Your task to perform on an android device: see tabs open on other devices in the chrome app Image 0: 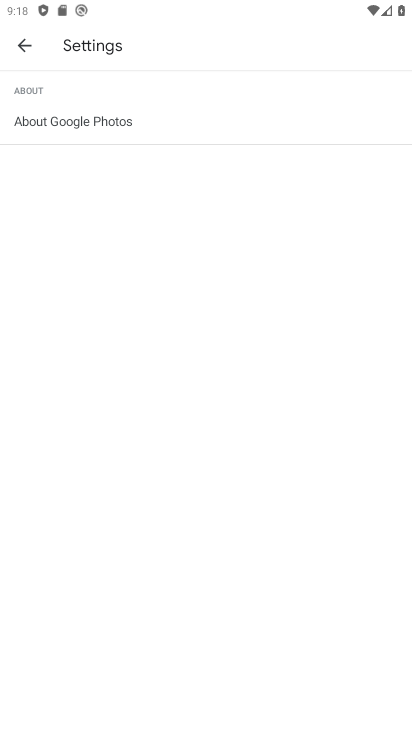
Step 0: press back button
Your task to perform on an android device: see tabs open on other devices in the chrome app Image 1: 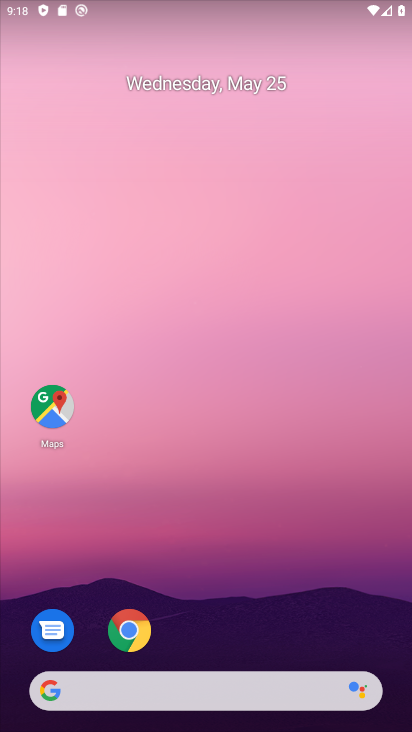
Step 1: click (125, 624)
Your task to perform on an android device: see tabs open on other devices in the chrome app Image 2: 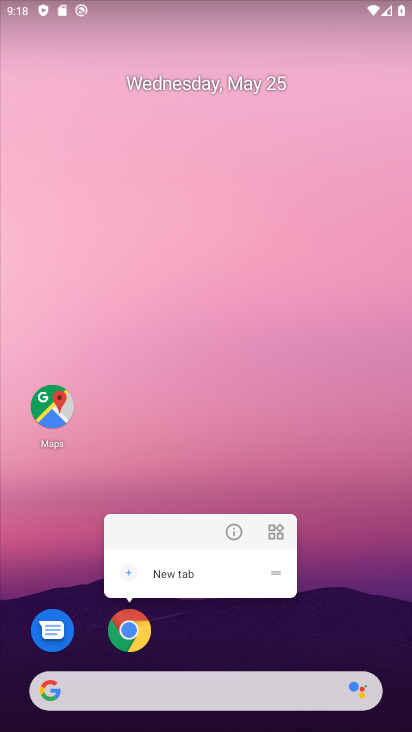
Step 2: click (123, 627)
Your task to perform on an android device: see tabs open on other devices in the chrome app Image 3: 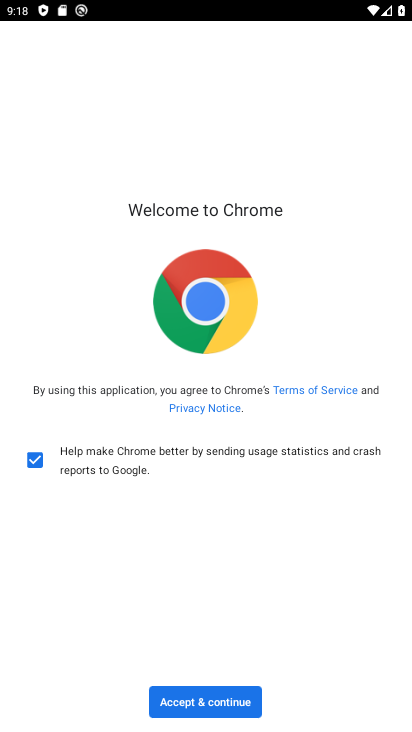
Step 3: click (191, 693)
Your task to perform on an android device: see tabs open on other devices in the chrome app Image 4: 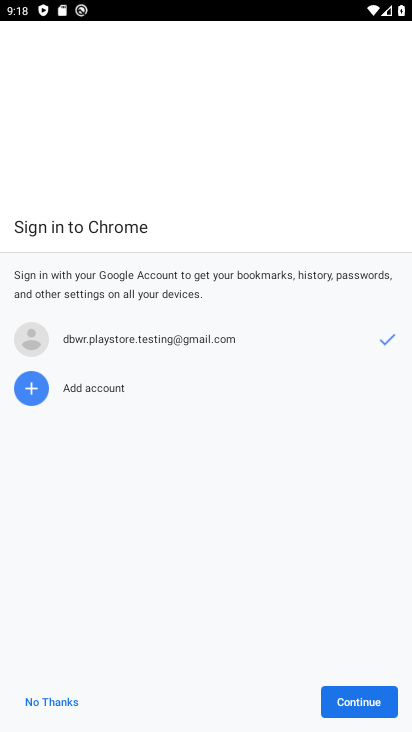
Step 4: click (375, 712)
Your task to perform on an android device: see tabs open on other devices in the chrome app Image 5: 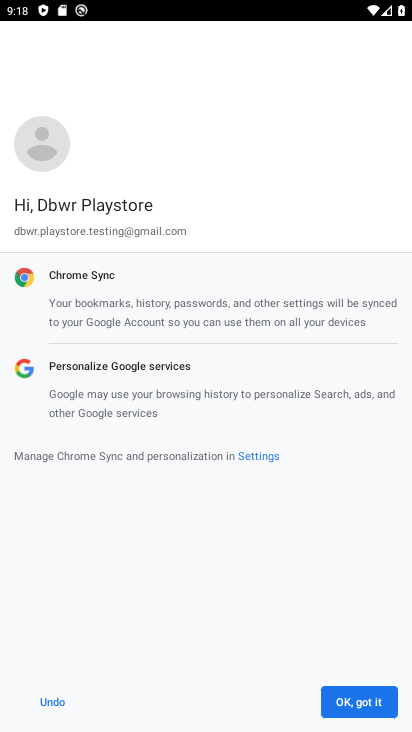
Step 5: click (366, 699)
Your task to perform on an android device: see tabs open on other devices in the chrome app Image 6: 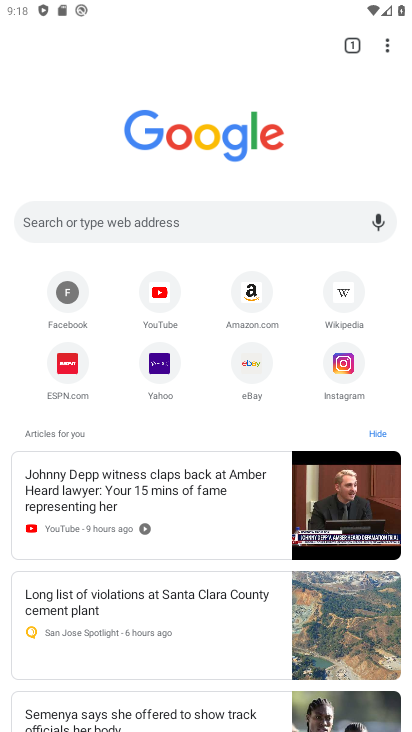
Step 6: task complete